Your task to perform on an android device: turn pop-ups on in chrome Image 0: 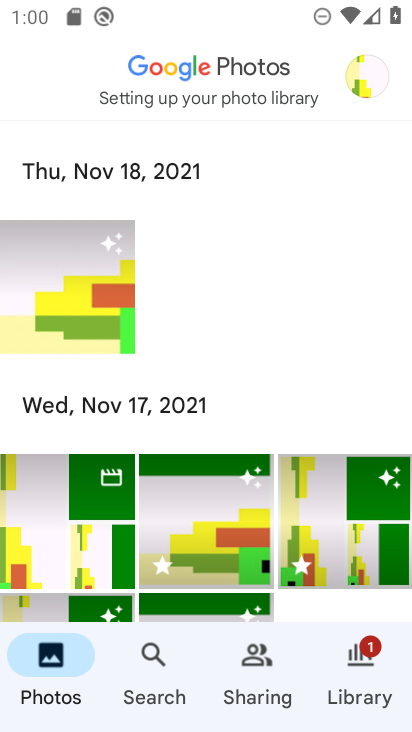
Step 0: press home button
Your task to perform on an android device: turn pop-ups on in chrome Image 1: 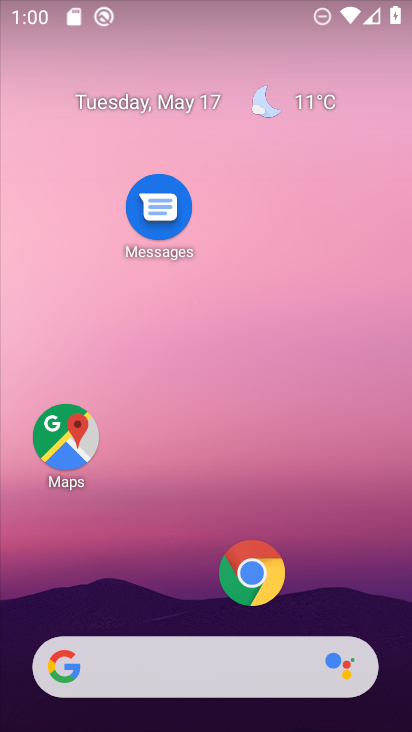
Step 1: click (253, 563)
Your task to perform on an android device: turn pop-ups on in chrome Image 2: 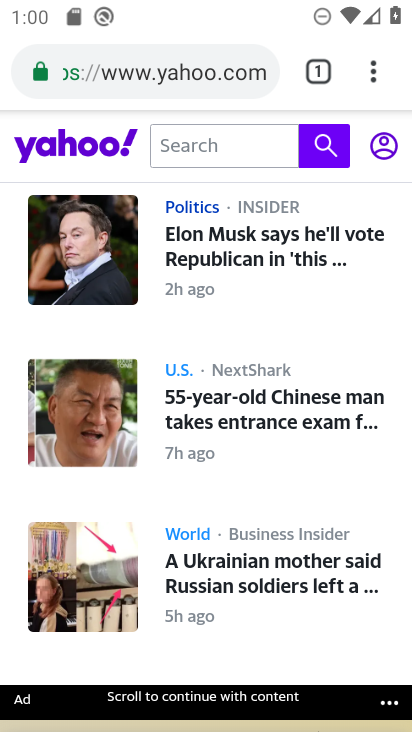
Step 2: click (373, 78)
Your task to perform on an android device: turn pop-ups on in chrome Image 3: 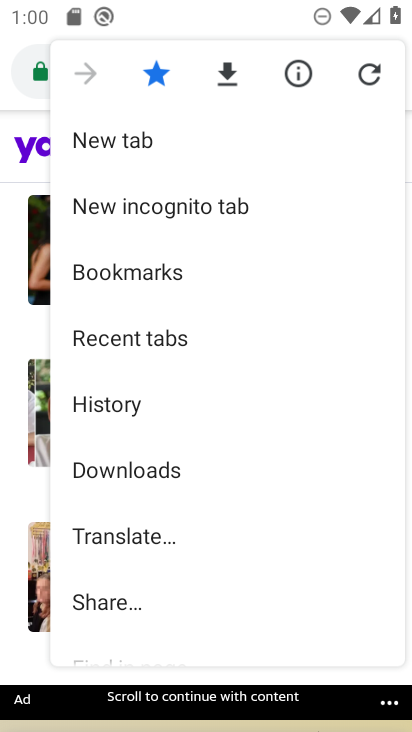
Step 3: drag from (210, 568) to (236, 111)
Your task to perform on an android device: turn pop-ups on in chrome Image 4: 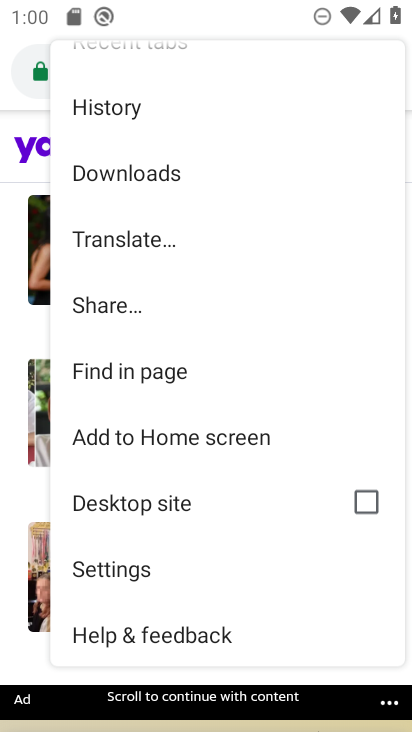
Step 4: click (164, 570)
Your task to perform on an android device: turn pop-ups on in chrome Image 5: 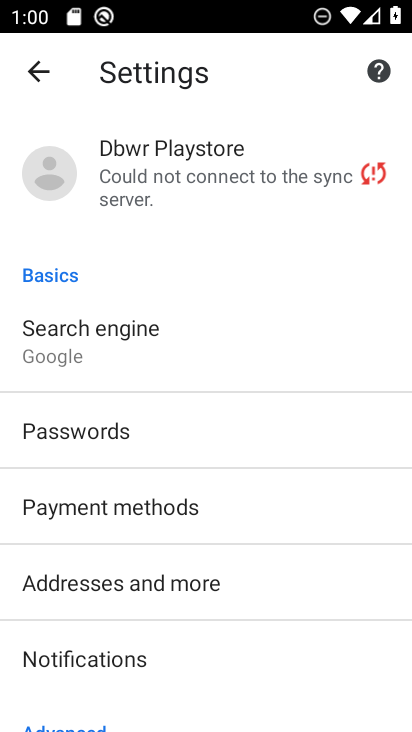
Step 5: click (209, 684)
Your task to perform on an android device: turn pop-ups on in chrome Image 6: 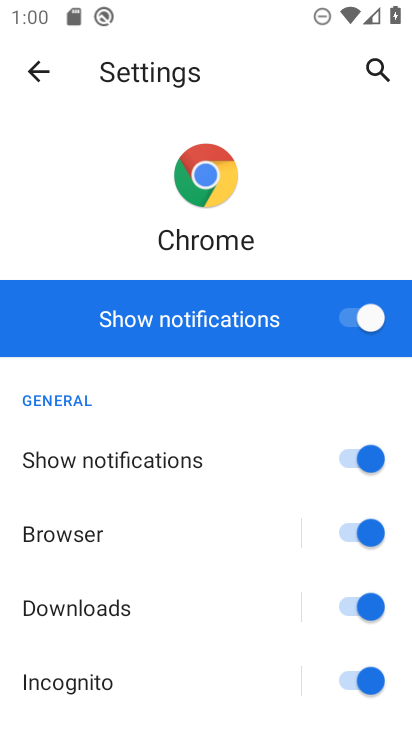
Step 6: click (30, 69)
Your task to perform on an android device: turn pop-ups on in chrome Image 7: 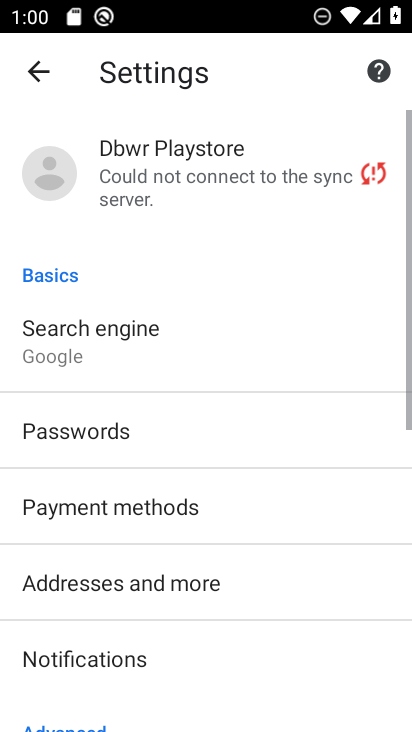
Step 7: drag from (259, 642) to (284, 100)
Your task to perform on an android device: turn pop-ups on in chrome Image 8: 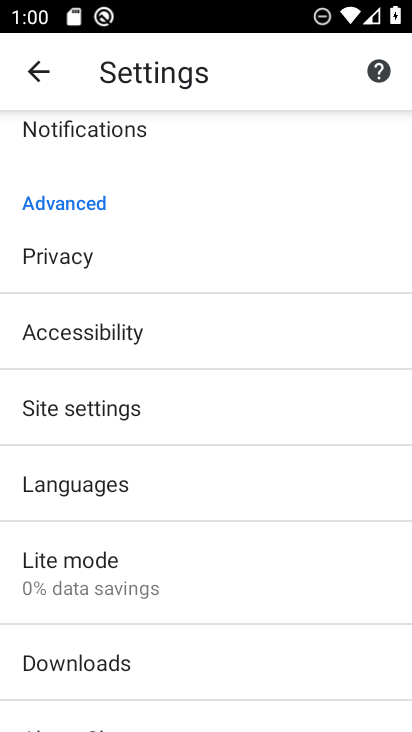
Step 8: click (161, 412)
Your task to perform on an android device: turn pop-ups on in chrome Image 9: 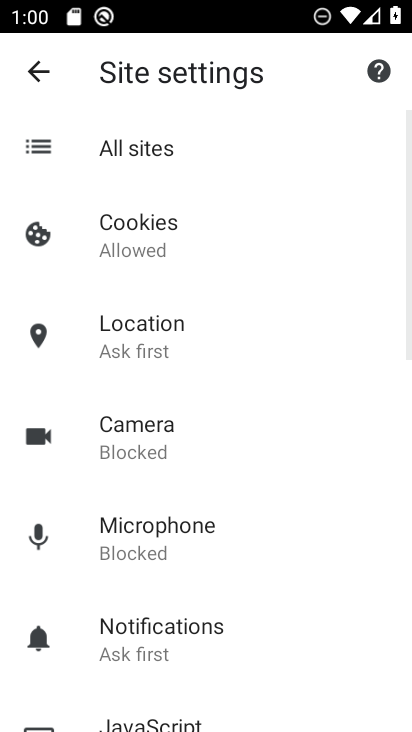
Step 9: drag from (248, 650) to (251, 357)
Your task to perform on an android device: turn pop-ups on in chrome Image 10: 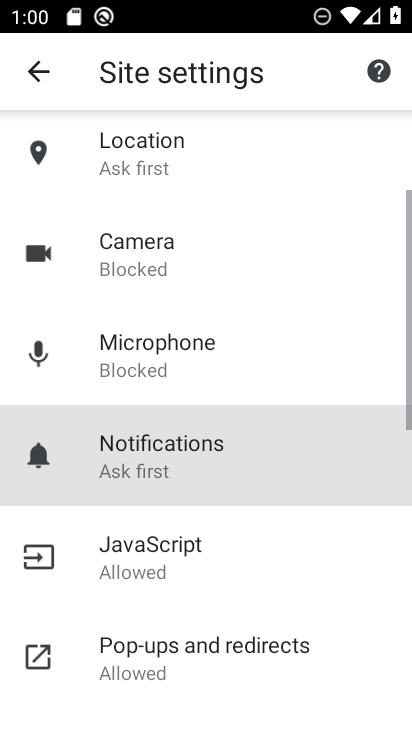
Step 10: drag from (266, 244) to (278, 188)
Your task to perform on an android device: turn pop-ups on in chrome Image 11: 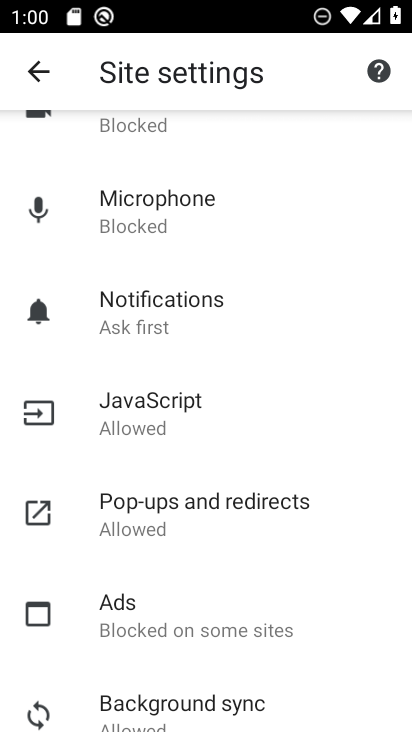
Step 11: click (186, 515)
Your task to perform on an android device: turn pop-ups on in chrome Image 12: 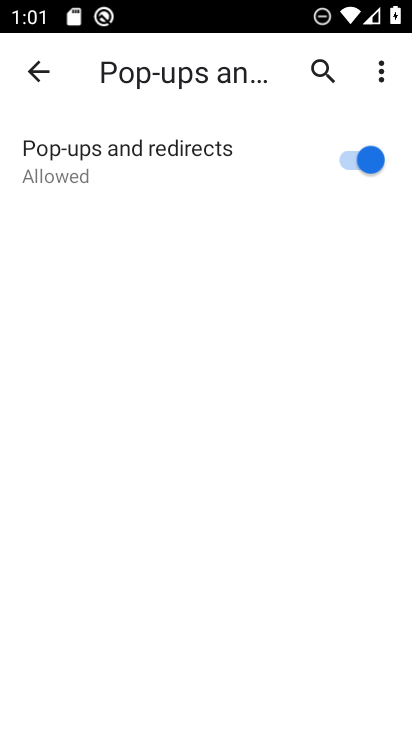
Step 12: task complete